Your task to perform on an android device: What's on my calendar tomorrow? Image 0: 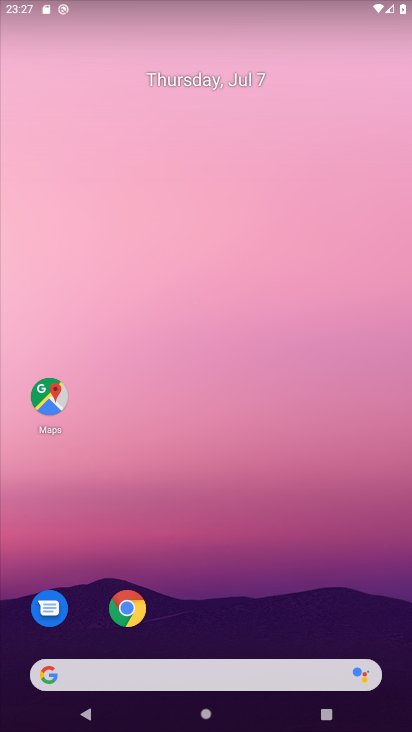
Step 0: drag from (251, 554) to (349, 703)
Your task to perform on an android device: What's on my calendar tomorrow? Image 1: 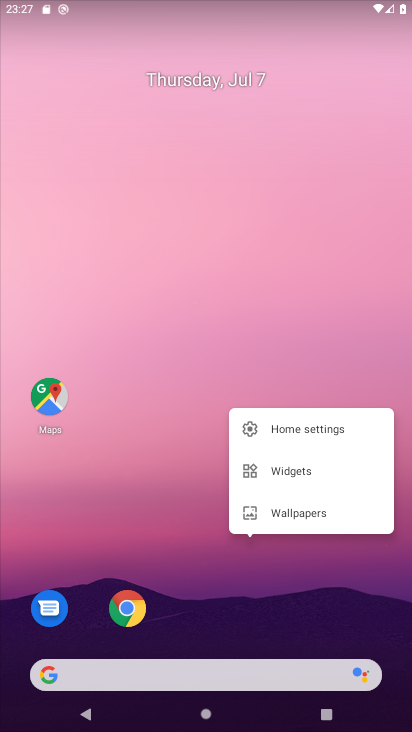
Step 1: click (133, 442)
Your task to perform on an android device: What's on my calendar tomorrow? Image 2: 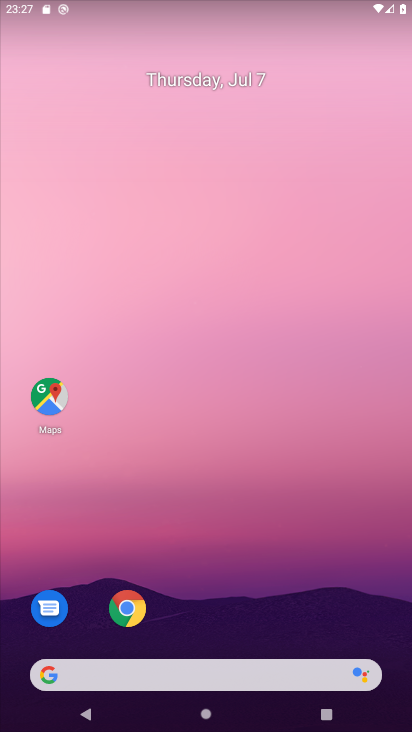
Step 2: drag from (183, 540) to (186, 272)
Your task to perform on an android device: What's on my calendar tomorrow? Image 3: 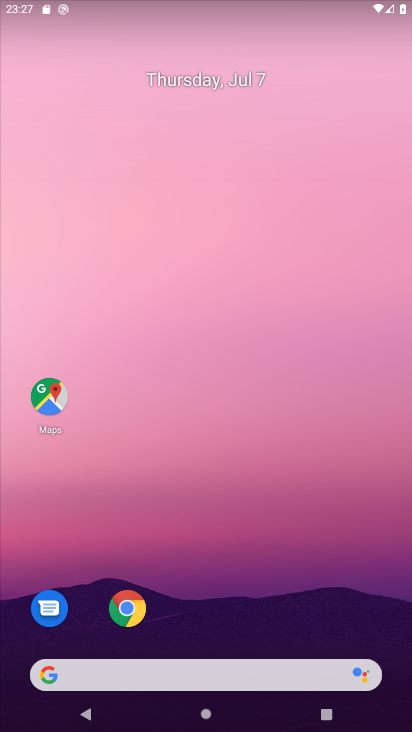
Step 3: drag from (236, 508) to (209, 290)
Your task to perform on an android device: What's on my calendar tomorrow? Image 4: 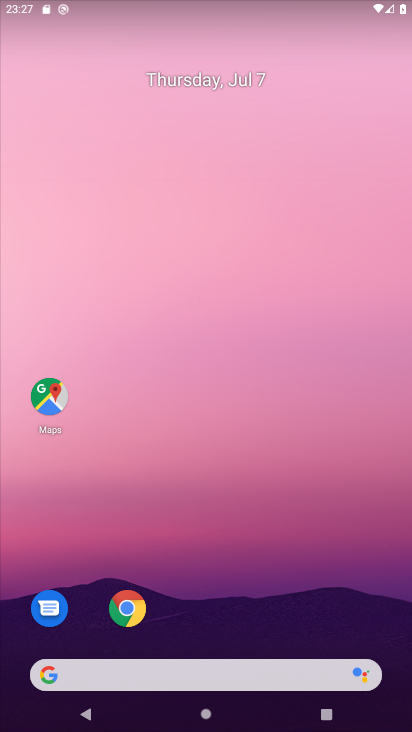
Step 4: drag from (242, 549) to (262, 224)
Your task to perform on an android device: What's on my calendar tomorrow? Image 5: 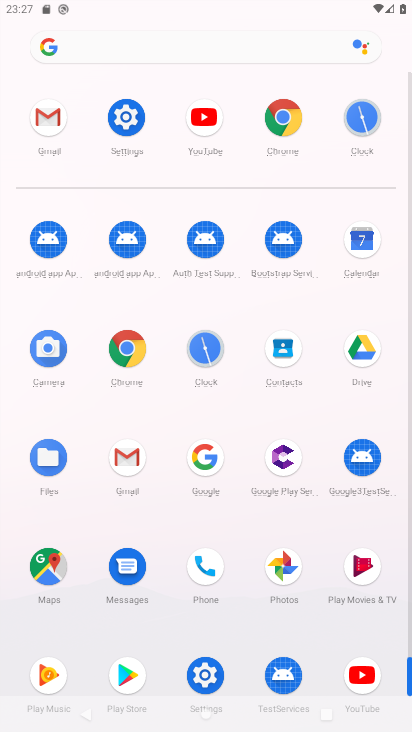
Step 5: click (360, 232)
Your task to perform on an android device: What's on my calendar tomorrow? Image 6: 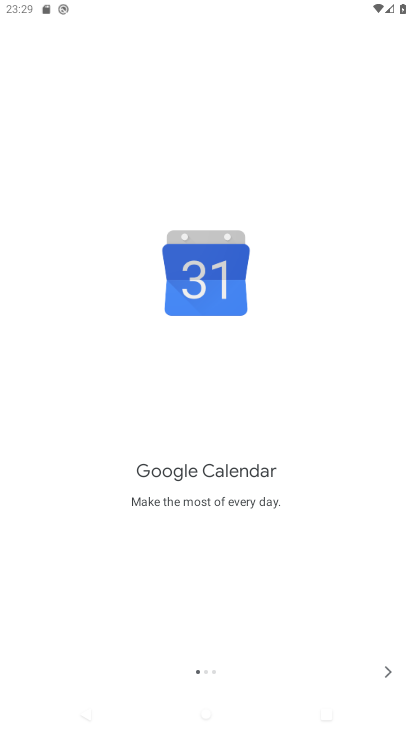
Step 6: click (380, 672)
Your task to perform on an android device: What's on my calendar tomorrow? Image 7: 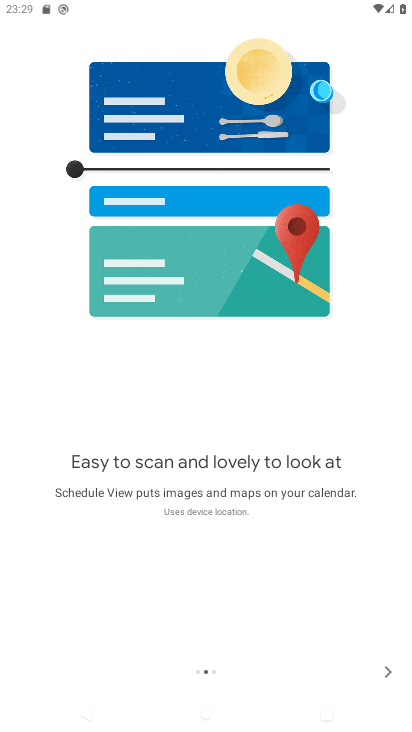
Step 7: click (380, 672)
Your task to perform on an android device: What's on my calendar tomorrow? Image 8: 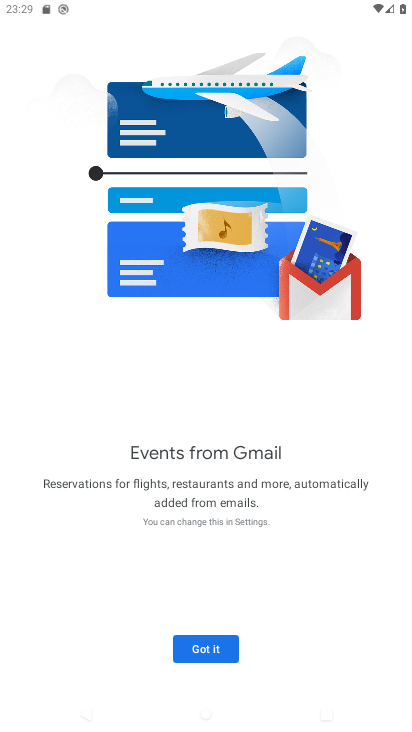
Step 8: click (205, 642)
Your task to perform on an android device: What's on my calendar tomorrow? Image 9: 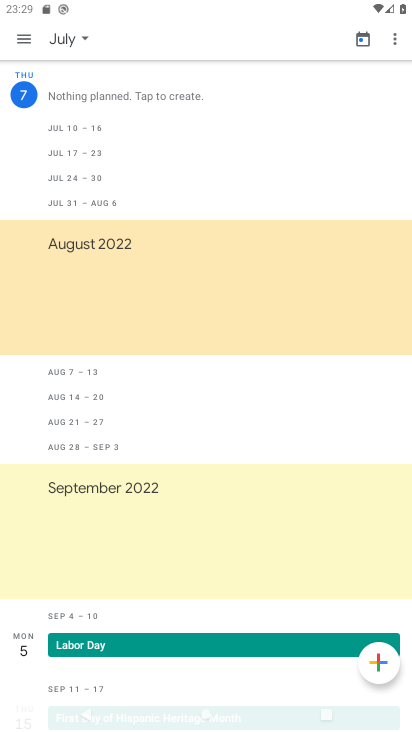
Step 9: click (17, 27)
Your task to perform on an android device: What's on my calendar tomorrow? Image 10: 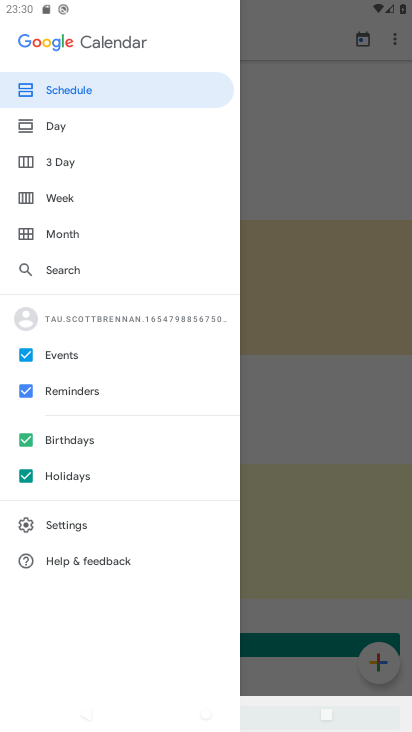
Step 10: click (97, 226)
Your task to perform on an android device: What's on my calendar tomorrow? Image 11: 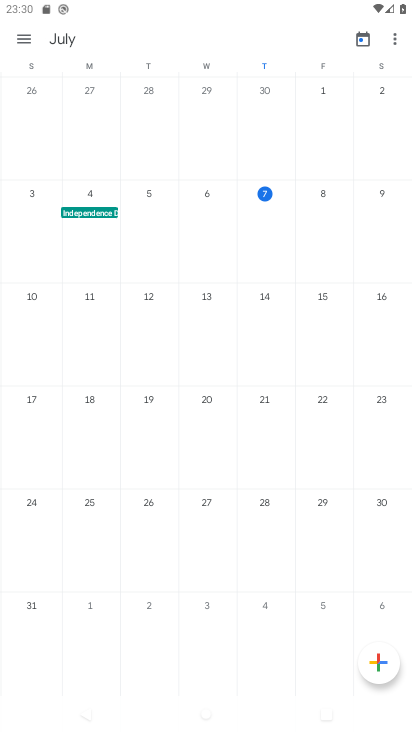
Step 11: click (314, 228)
Your task to perform on an android device: What's on my calendar tomorrow? Image 12: 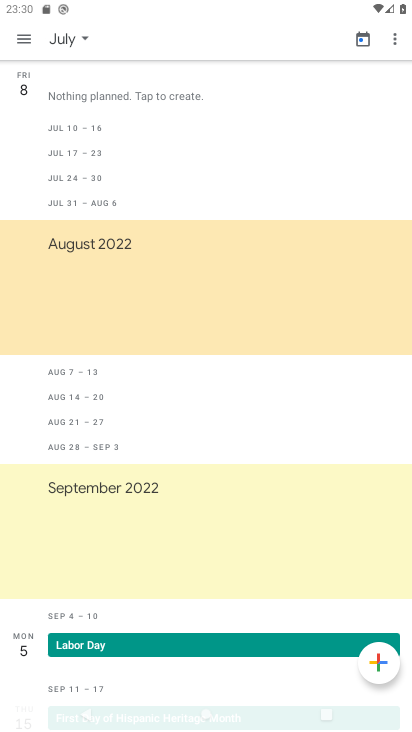
Step 12: task complete